Your task to perform on an android device: see tabs open on other devices in the chrome app Image 0: 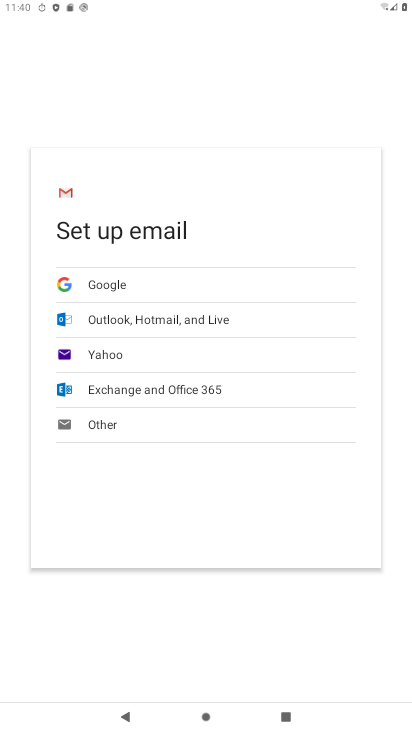
Step 0: press home button
Your task to perform on an android device: see tabs open on other devices in the chrome app Image 1: 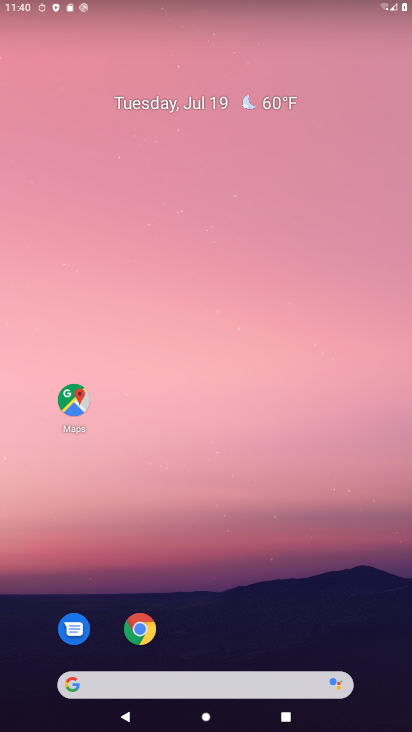
Step 1: click (132, 632)
Your task to perform on an android device: see tabs open on other devices in the chrome app Image 2: 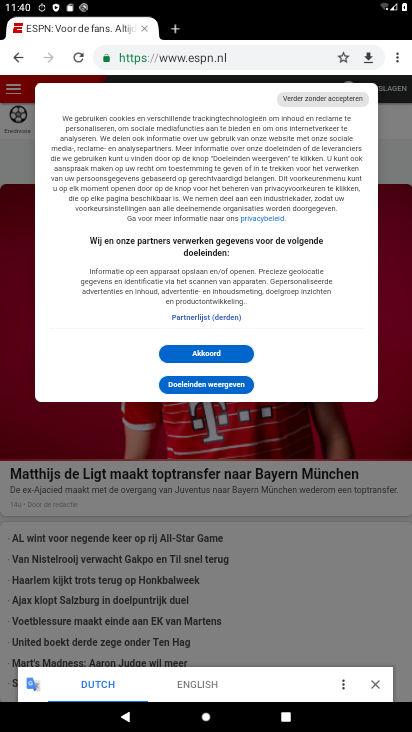
Step 2: click (404, 58)
Your task to perform on an android device: see tabs open on other devices in the chrome app Image 3: 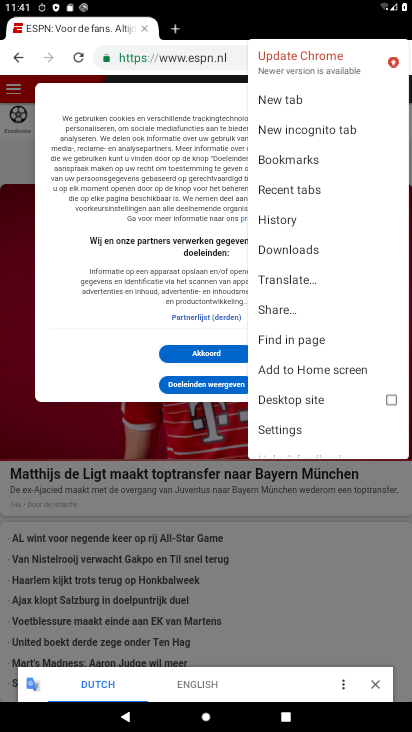
Step 3: click (289, 190)
Your task to perform on an android device: see tabs open on other devices in the chrome app Image 4: 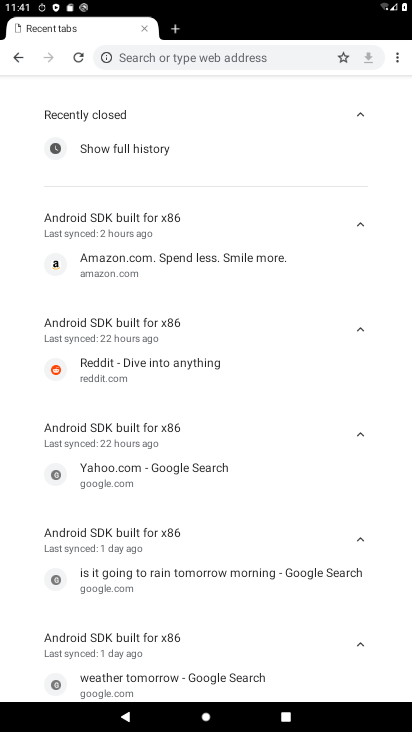
Step 4: task complete